Your task to perform on an android device: turn on location history Image 0: 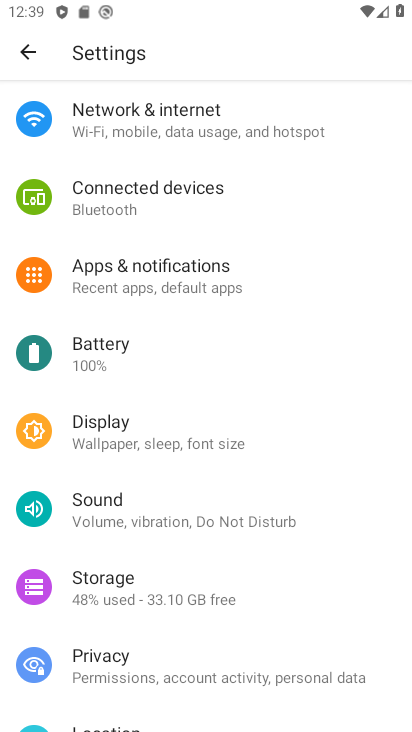
Step 0: drag from (180, 551) to (249, 173)
Your task to perform on an android device: turn on location history Image 1: 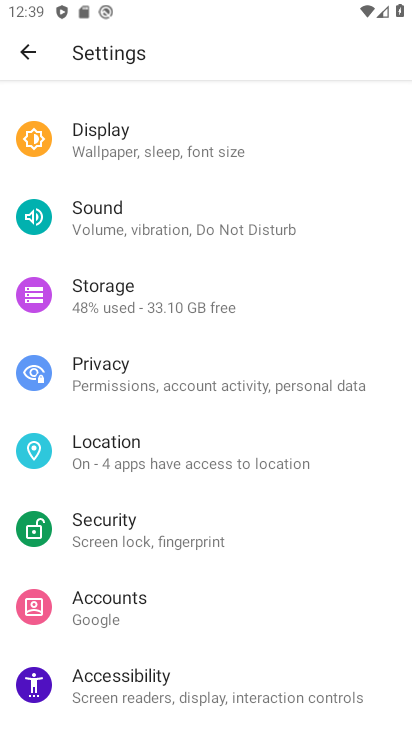
Step 1: click (125, 448)
Your task to perform on an android device: turn on location history Image 2: 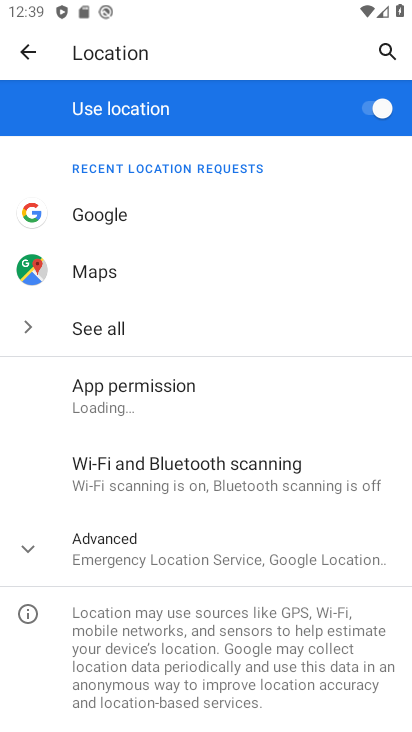
Step 2: click (149, 490)
Your task to perform on an android device: turn on location history Image 3: 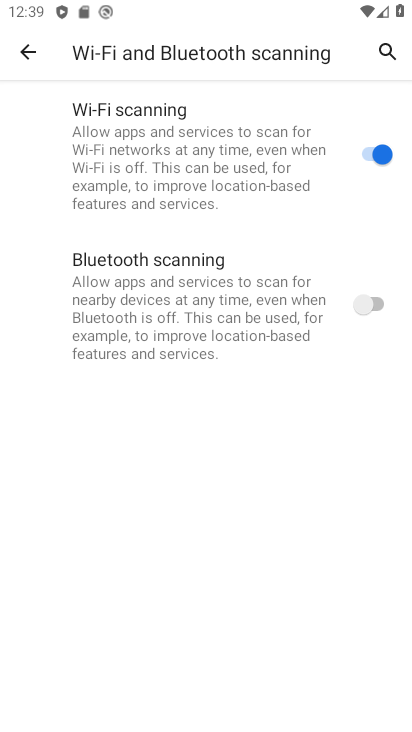
Step 3: click (43, 51)
Your task to perform on an android device: turn on location history Image 4: 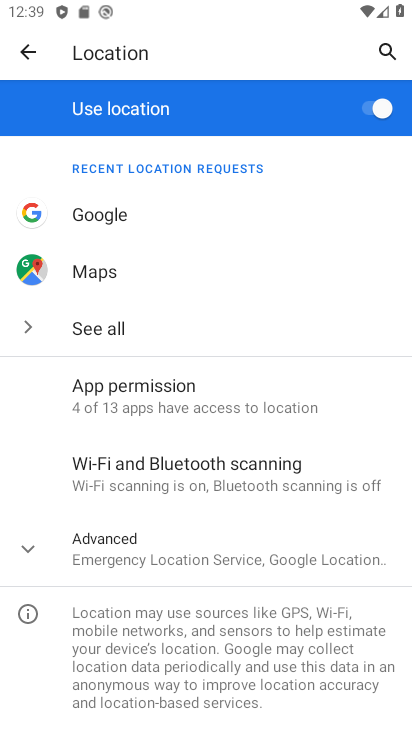
Step 4: click (105, 553)
Your task to perform on an android device: turn on location history Image 5: 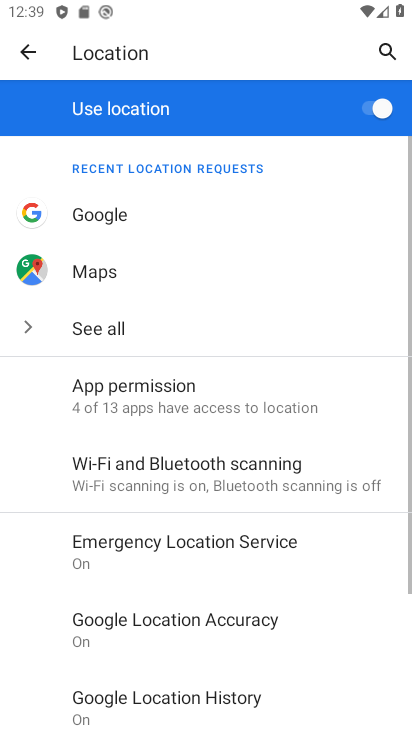
Step 5: drag from (195, 506) to (298, 56)
Your task to perform on an android device: turn on location history Image 6: 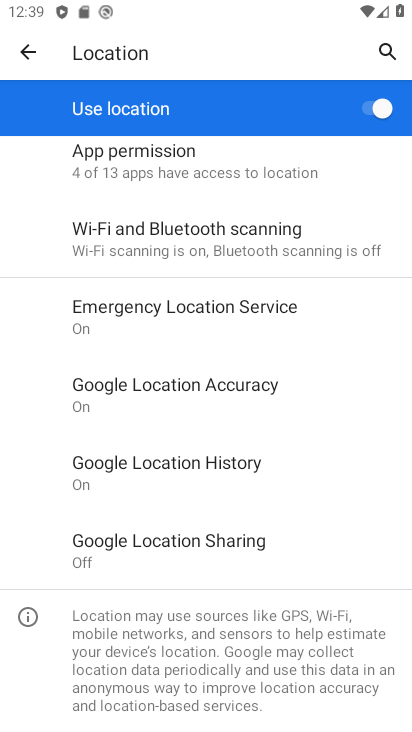
Step 6: click (194, 456)
Your task to perform on an android device: turn on location history Image 7: 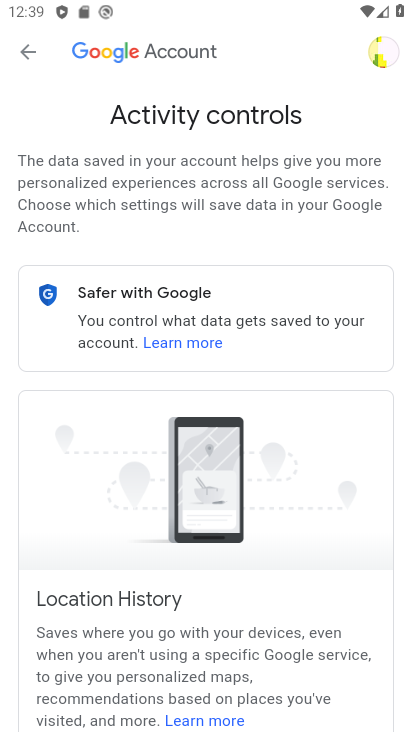
Step 7: drag from (224, 582) to (290, 127)
Your task to perform on an android device: turn on location history Image 8: 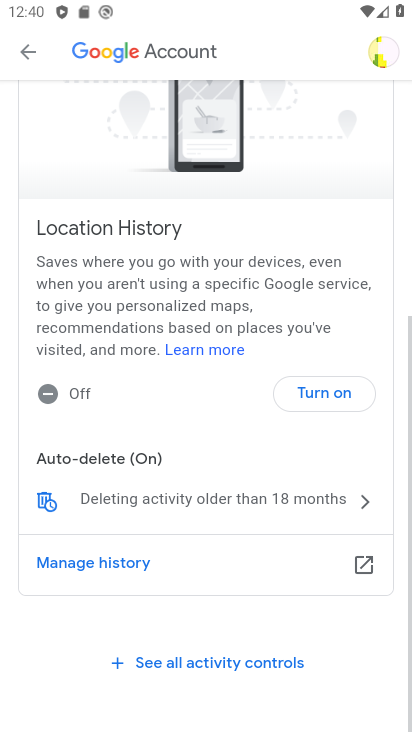
Step 8: drag from (300, 415) to (348, 141)
Your task to perform on an android device: turn on location history Image 9: 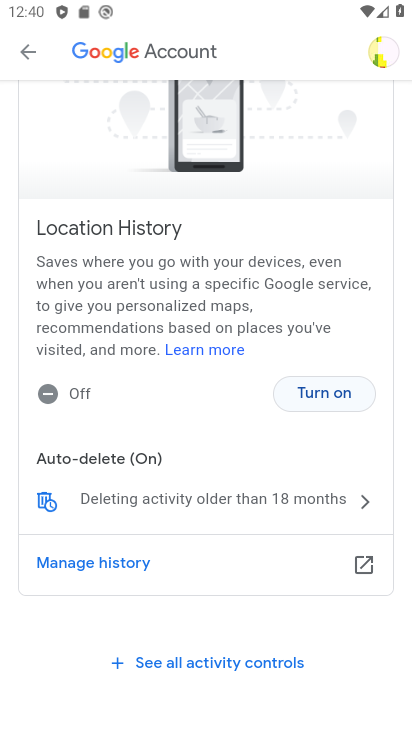
Step 9: click (259, 157)
Your task to perform on an android device: turn on location history Image 10: 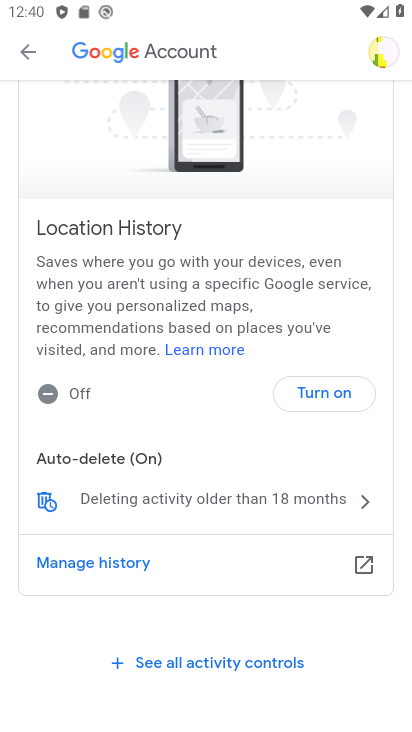
Step 10: click (320, 399)
Your task to perform on an android device: turn on location history Image 11: 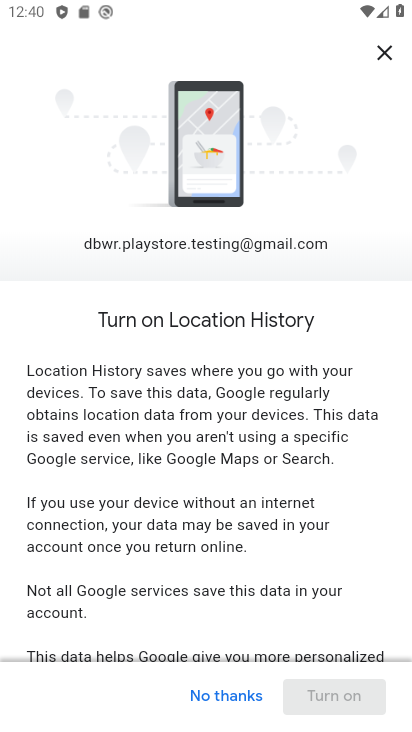
Step 11: drag from (220, 578) to (306, 176)
Your task to perform on an android device: turn on location history Image 12: 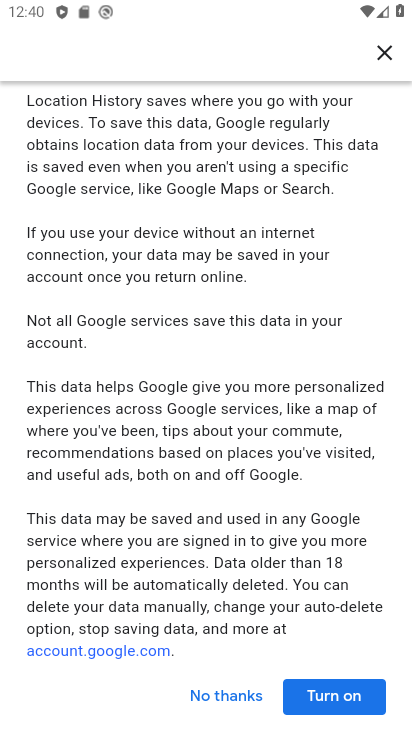
Step 12: click (320, 700)
Your task to perform on an android device: turn on location history Image 13: 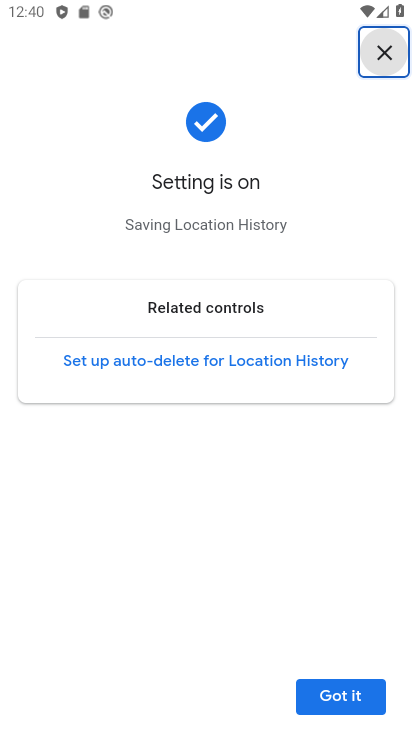
Step 13: click (330, 700)
Your task to perform on an android device: turn on location history Image 14: 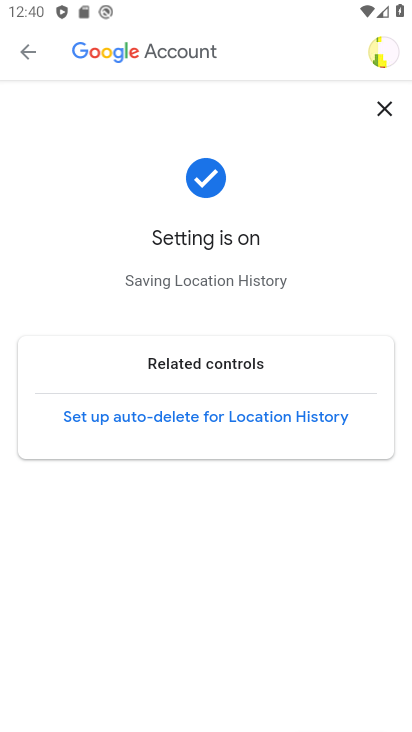
Step 14: task complete